Your task to perform on an android device: open sync settings in chrome Image 0: 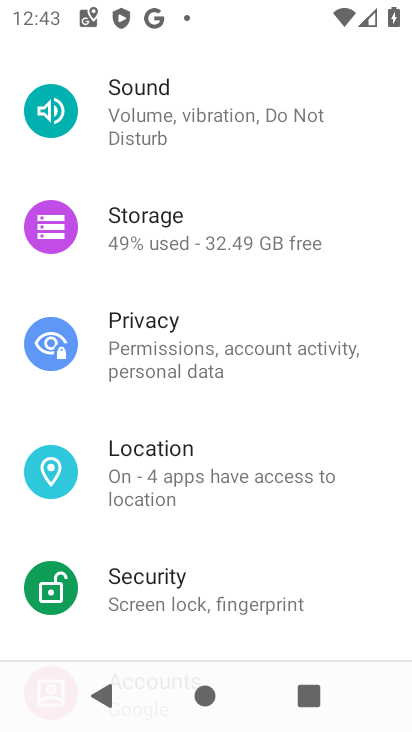
Step 0: press home button
Your task to perform on an android device: open sync settings in chrome Image 1: 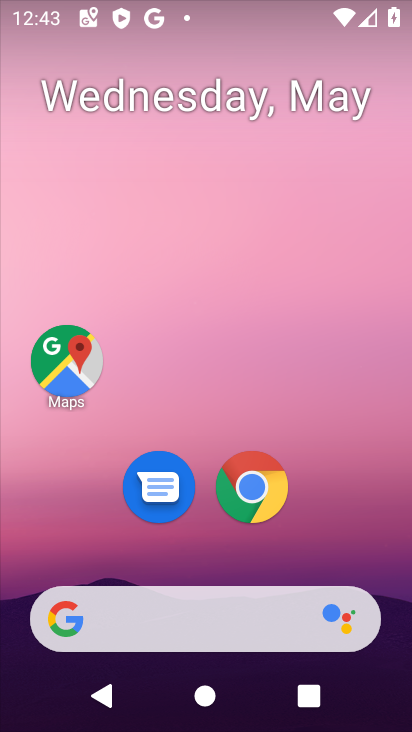
Step 1: click (273, 483)
Your task to perform on an android device: open sync settings in chrome Image 2: 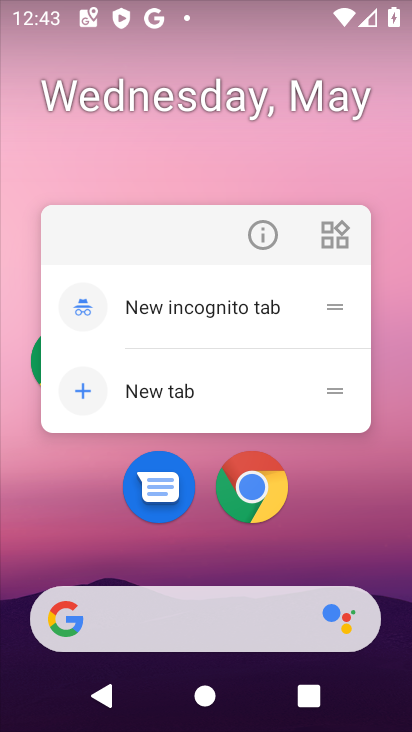
Step 2: click (273, 483)
Your task to perform on an android device: open sync settings in chrome Image 3: 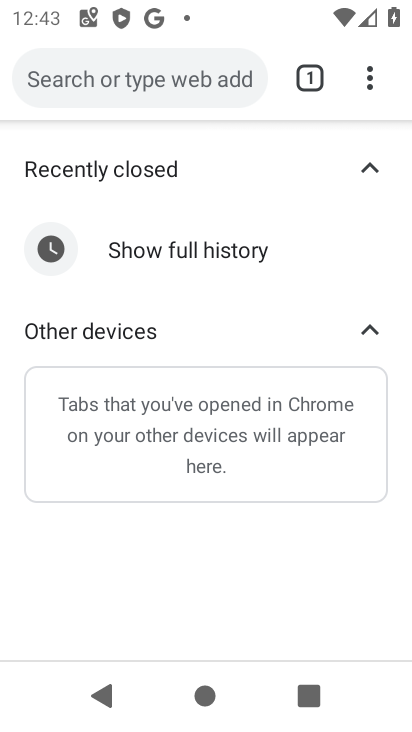
Step 3: click (368, 75)
Your task to perform on an android device: open sync settings in chrome Image 4: 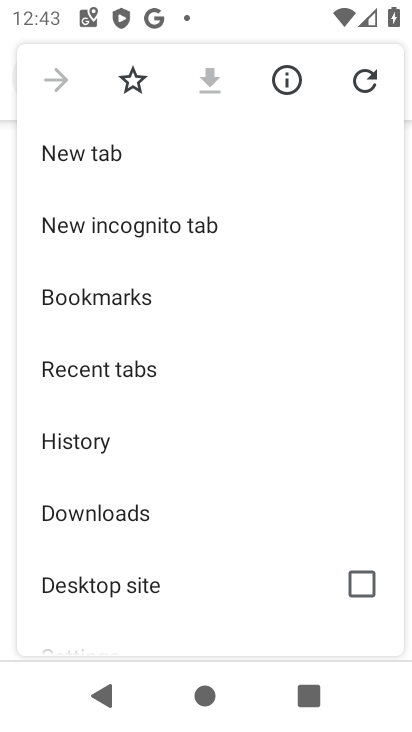
Step 4: drag from (112, 548) to (192, 285)
Your task to perform on an android device: open sync settings in chrome Image 5: 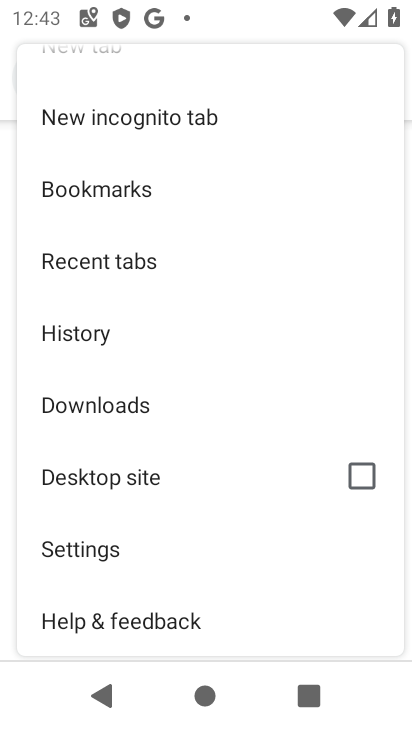
Step 5: click (113, 563)
Your task to perform on an android device: open sync settings in chrome Image 6: 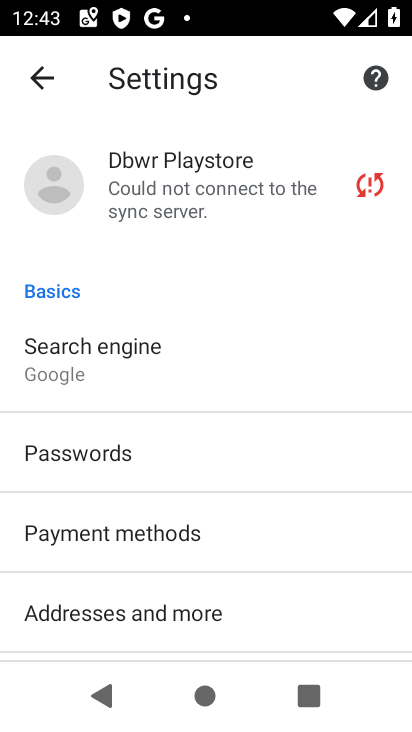
Step 6: click (228, 196)
Your task to perform on an android device: open sync settings in chrome Image 7: 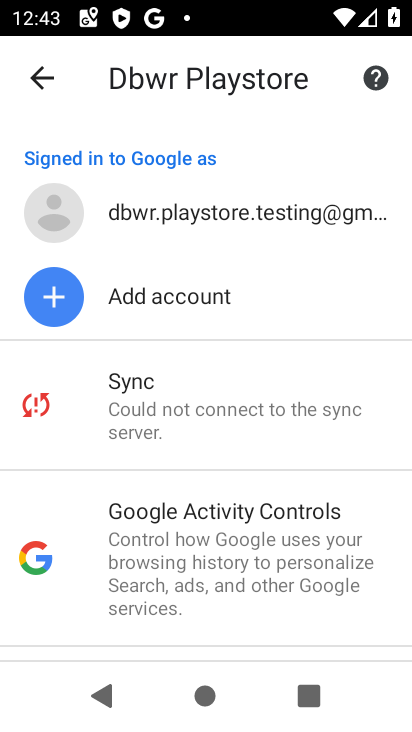
Step 7: click (249, 417)
Your task to perform on an android device: open sync settings in chrome Image 8: 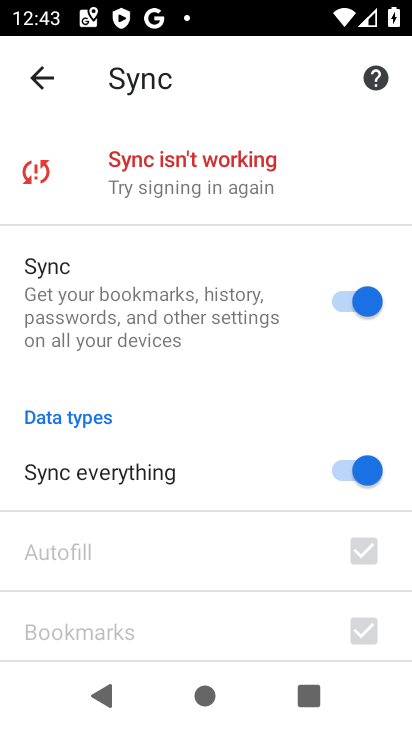
Step 8: click (207, 171)
Your task to perform on an android device: open sync settings in chrome Image 9: 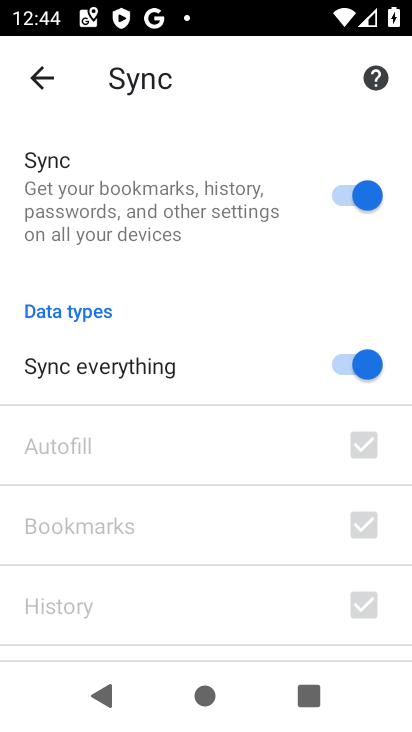
Step 9: task complete